Your task to perform on an android device: allow cookies in the chrome app Image 0: 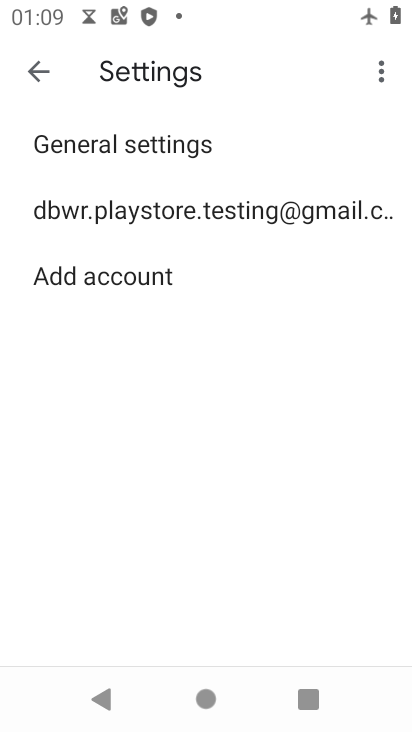
Step 0: press home button
Your task to perform on an android device: allow cookies in the chrome app Image 1: 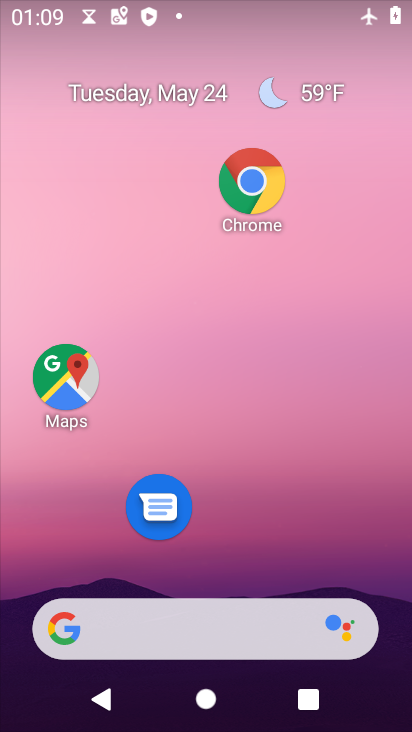
Step 1: drag from (287, 513) to (324, 187)
Your task to perform on an android device: allow cookies in the chrome app Image 2: 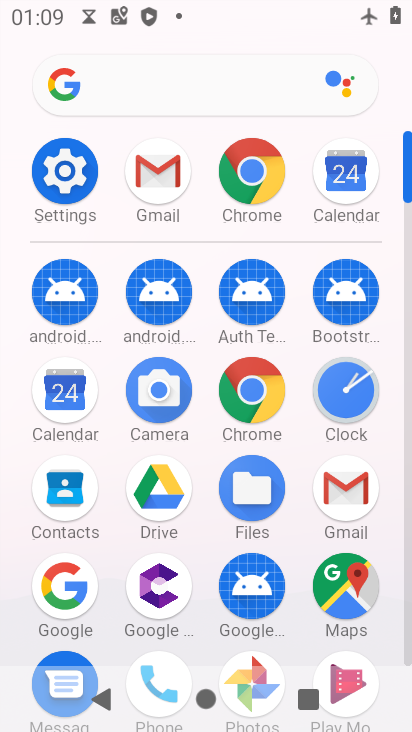
Step 2: click (55, 173)
Your task to perform on an android device: allow cookies in the chrome app Image 3: 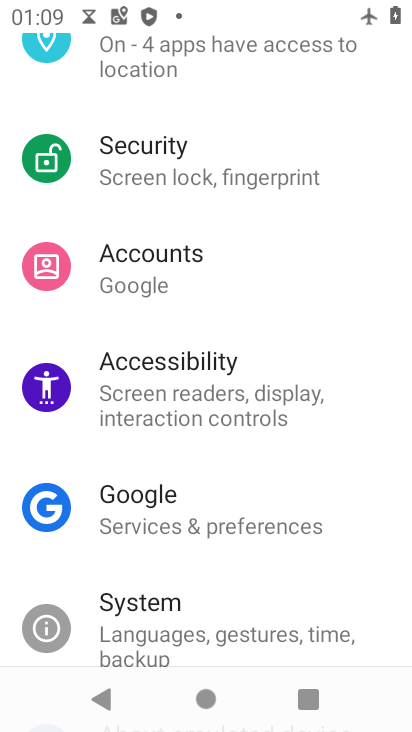
Step 3: drag from (199, 599) to (266, 255)
Your task to perform on an android device: allow cookies in the chrome app Image 4: 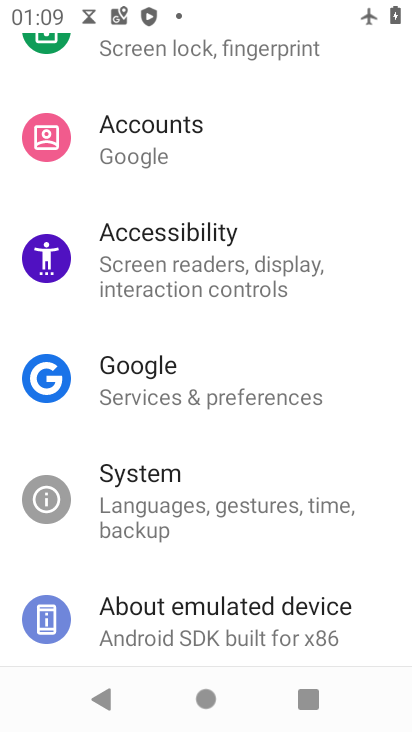
Step 4: press home button
Your task to perform on an android device: allow cookies in the chrome app Image 5: 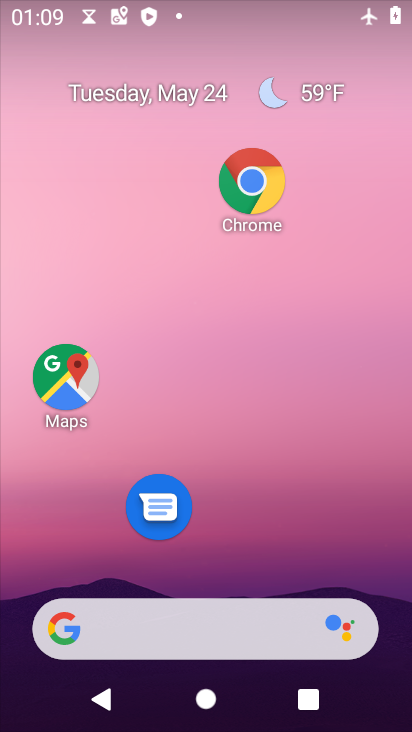
Step 5: drag from (324, 513) to (339, 270)
Your task to perform on an android device: allow cookies in the chrome app Image 6: 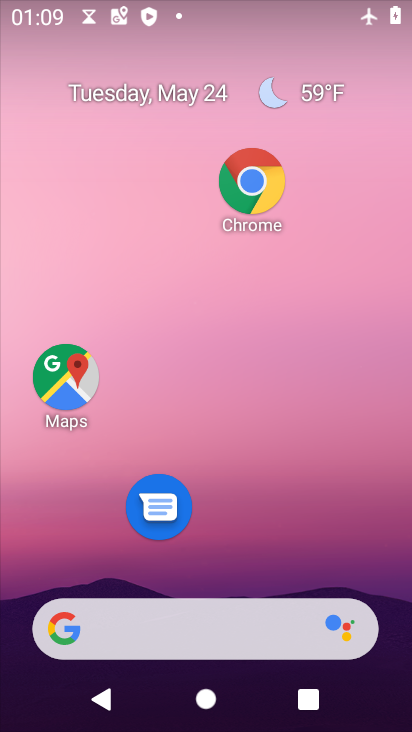
Step 6: drag from (263, 606) to (259, 255)
Your task to perform on an android device: allow cookies in the chrome app Image 7: 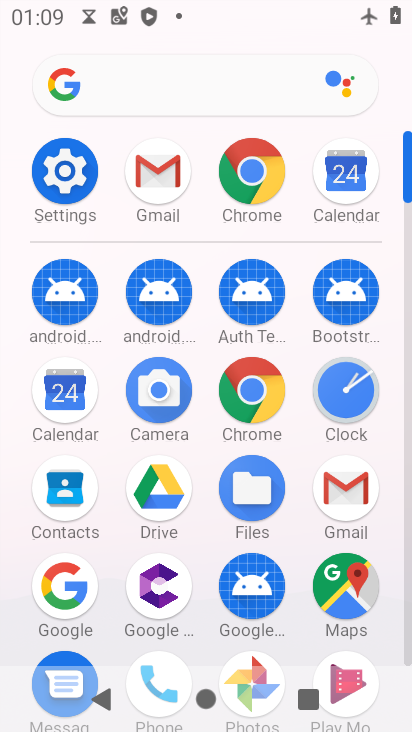
Step 7: click (262, 377)
Your task to perform on an android device: allow cookies in the chrome app Image 8: 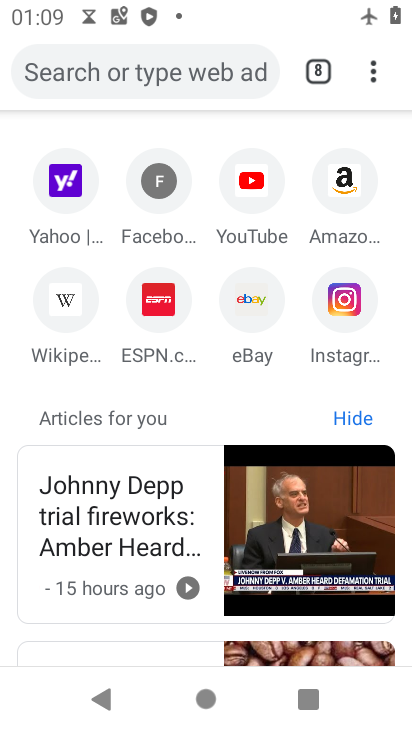
Step 8: click (374, 66)
Your task to perform on an android device: allow cookies in the chrome app Image 9: 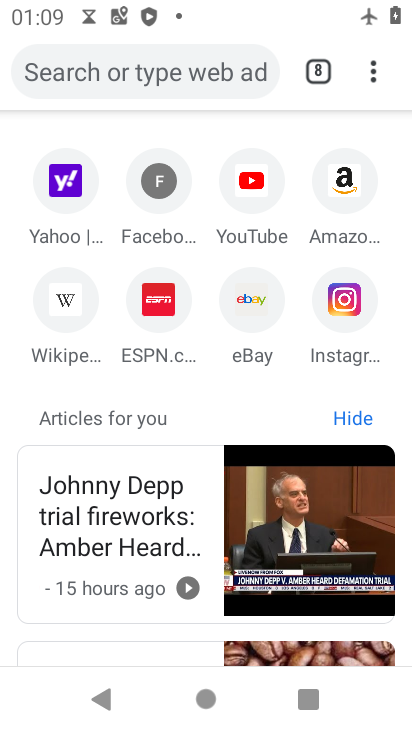
Step 9: click (374, 66)
Your task to perform on an android device: allow cookies in the chrome app Image 10: 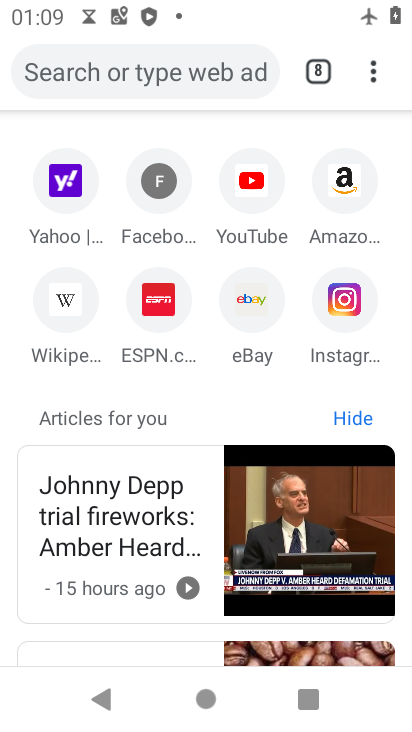
Step 10: click (374, 66)
Your task to perform on an android device: allow cookies in the chrome app Image 11: 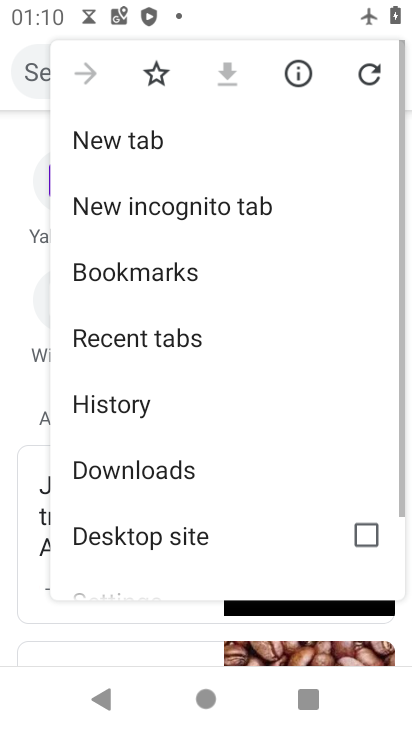
Step 11: click (173, 128)
Your task to perform on an android device: allow cookies in the chrome app Image 12: 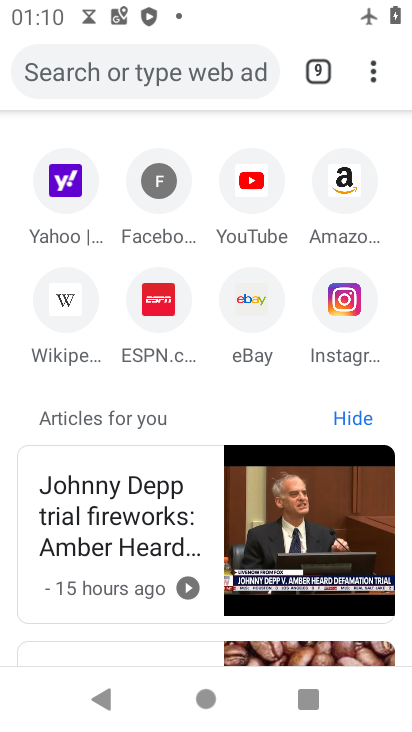
Step 12: drag from (203, 591) to (229, 274)
Your task to perform on an android device: allow cookies in the chrome app Image 13: 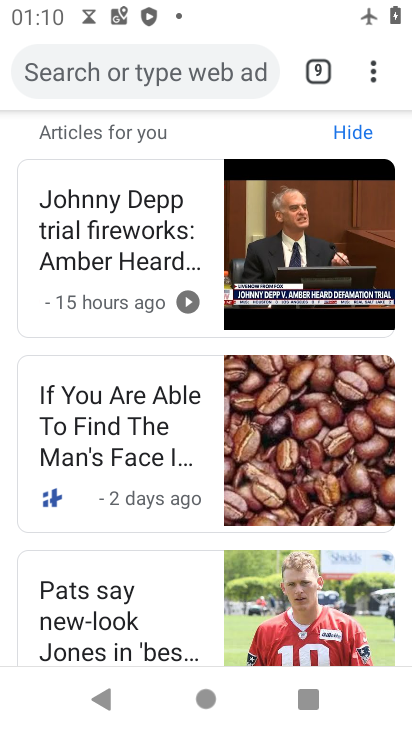
Step 13: click (369, 81)
Your task to perform on an android device: allow cookies in the chrome app Image 14: 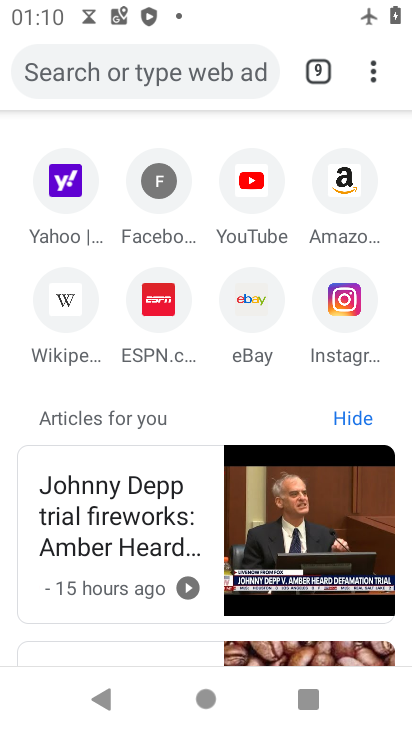
Step 14: click (369, 53)
Your task to perform on an android device: allow cookies in the chrome app Image 15: 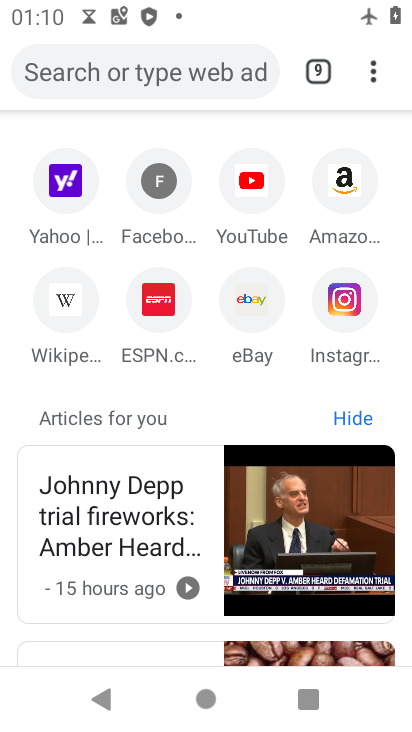
Step 15: click (372, 70)
Your task to perform on an android device: allow cookies in the chrome app Image 16: 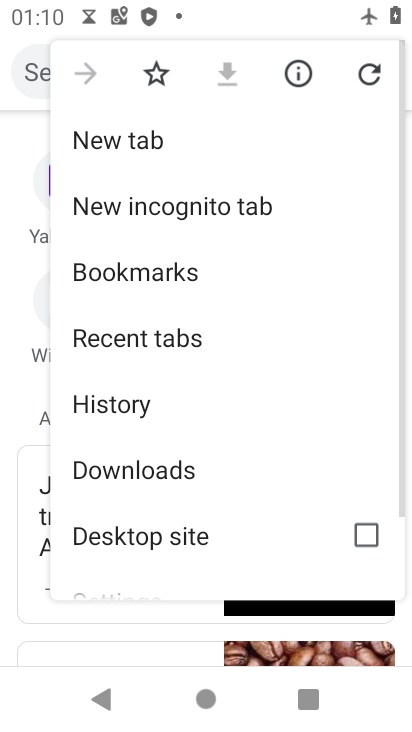
Step 16: click (145, 129)
Your task to perform on an android device: allow cookies in the chrome app Image 17: 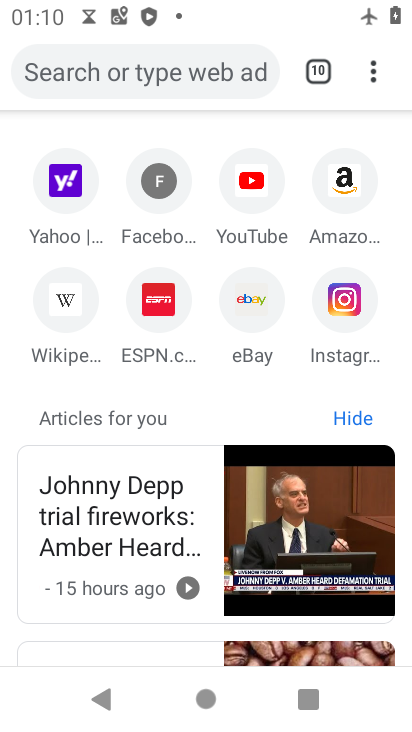
Step 17: click (385, 45)
Your task to perform on an android device: allow cookies in the chrome app Image 18: 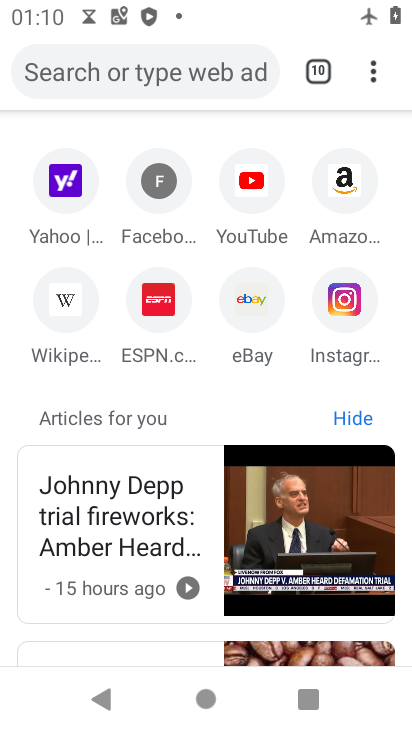
Step 18: click (379, 62)
Your task to perform on an android device: allow cookies in the chrome app Image 19: 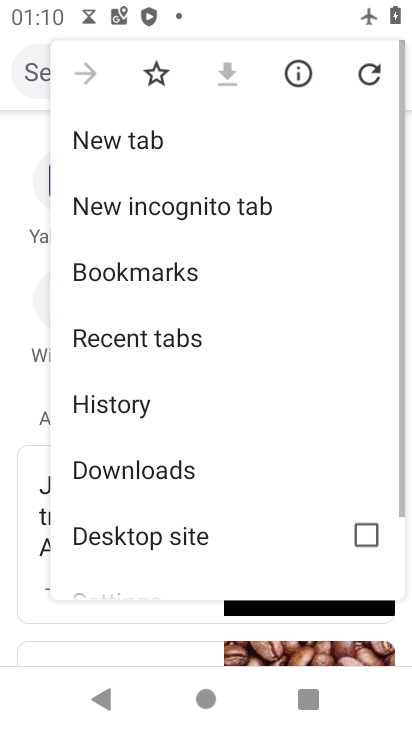
Step 19: drag from (179, 512) to (217, 182)
Your task to perform on an android device: allow cookies in the chrome app Image 20: 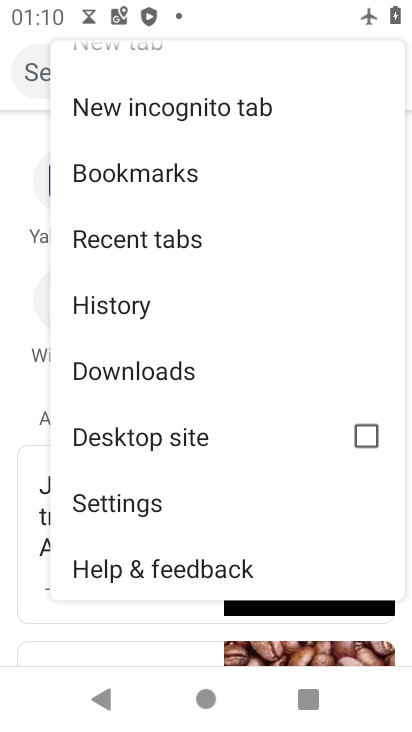
Step 20: click (139, 496)
Your task to perform on an android device: allow cookies in the chrome app Image 21: 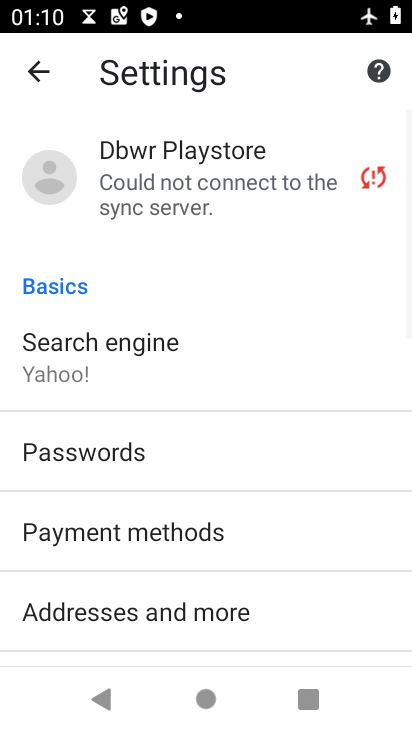
Step 21: drag from (144, 499) to (209, 152)
Your task to perform on an android device: allow cookies in the chrome app Image 22: 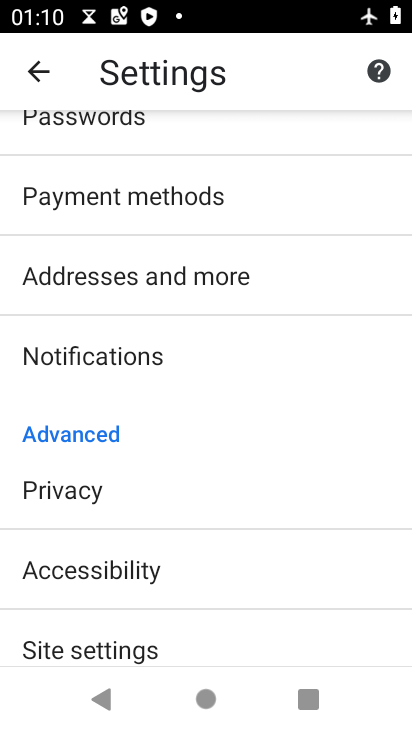
Step 22: click (92, 500)
Your task to perform on an android device: allow cookies in the chrome app Image 23: 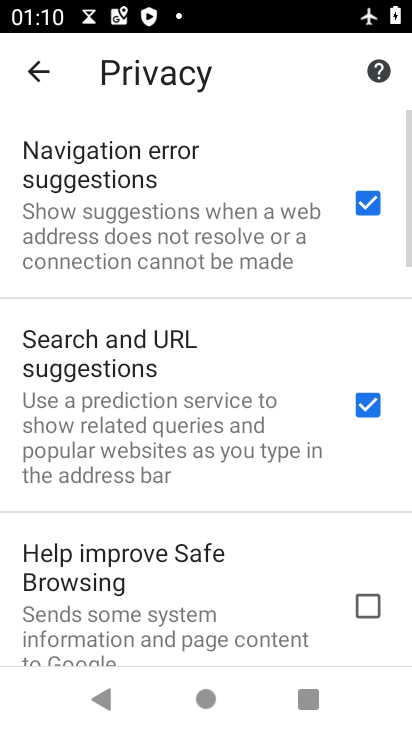
Step 23: click (9, 57)
Your task to perform on an android device: allow cookies in the chrome app Image 24: 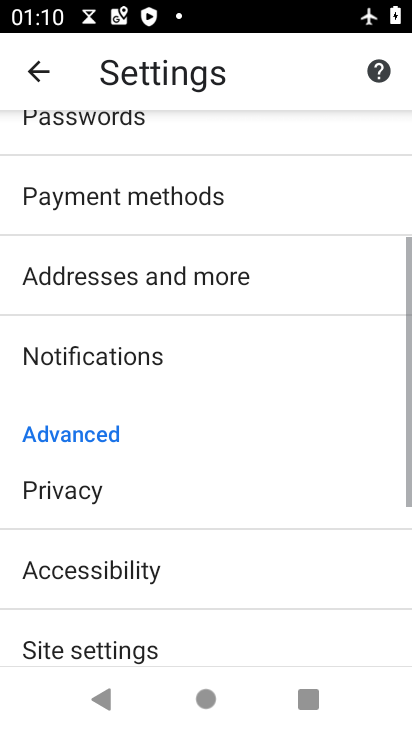
Step 24: drag from (170, 590) to (196, 402)
Your task to perform on an android device: allow cookies in the chrome app Image 25: 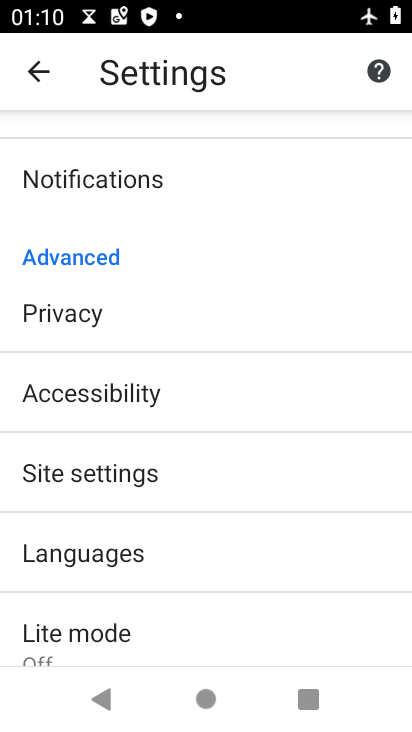
Step 25: click (175, 475)
Your task to perform on an android device: allow cookies in the chrome app Image 26: 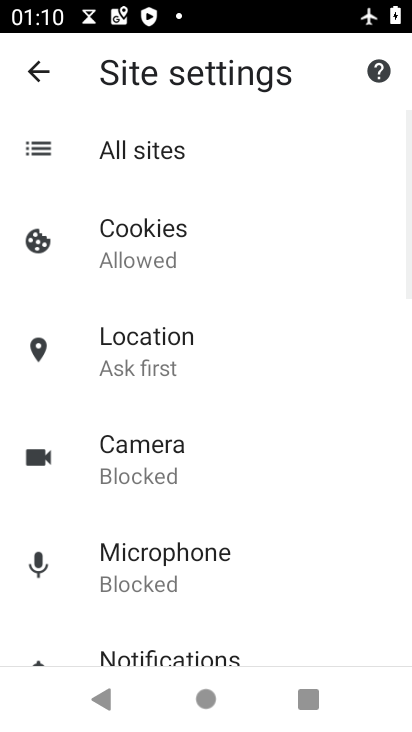
Step 26: click (201, 226)
Your task to perform on an android device: allow cookies in the chrome app Image 27: 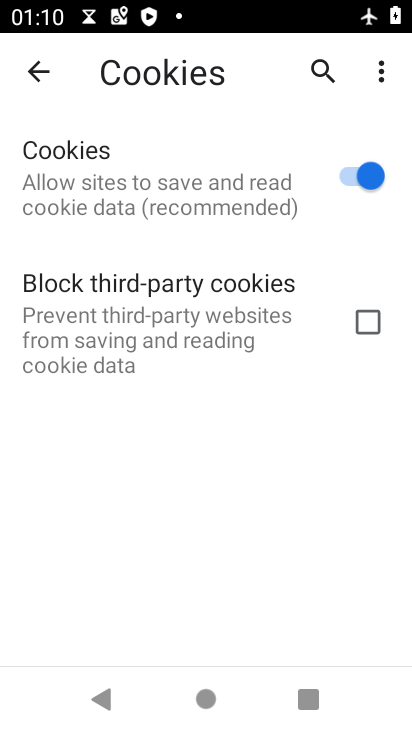
Step 27: task complete